Your task to perform on an android device: Turn on the flashlight Image 0: 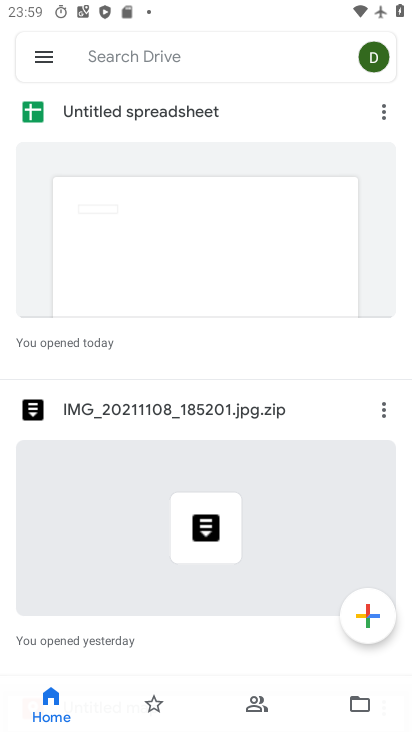
Step 0: press home button
Your task to perform on an android device: Turn on the flashlight Image 1: 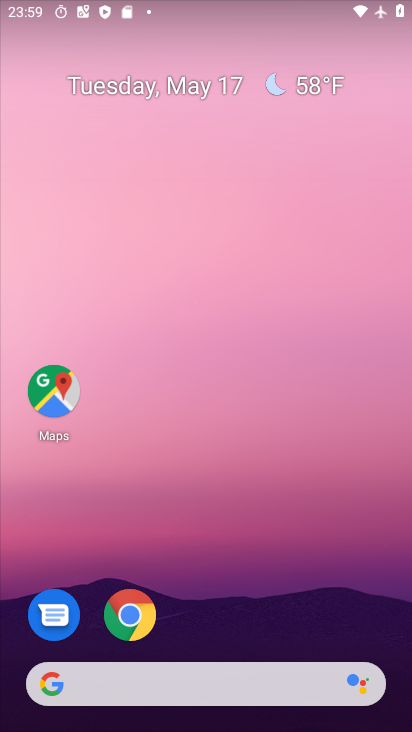
Step 1: drag from (220, 620) to (225, 137)
Your task to perform on an android device: Turn on the flashlight Image 2: 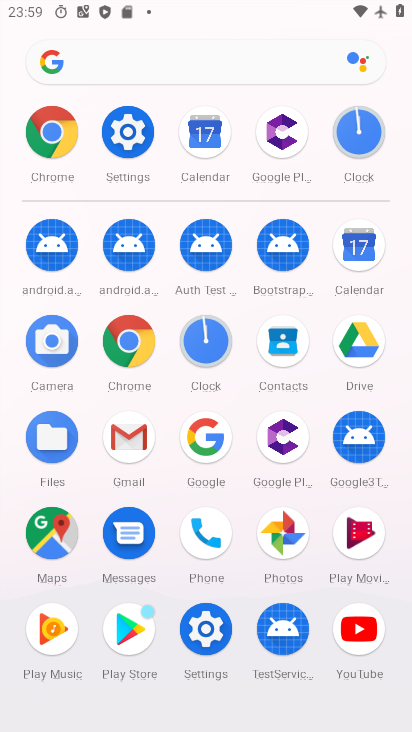
Step 2: click (130, 147)
Your task to perform on an android device: Turn on the flashlight Image 3: 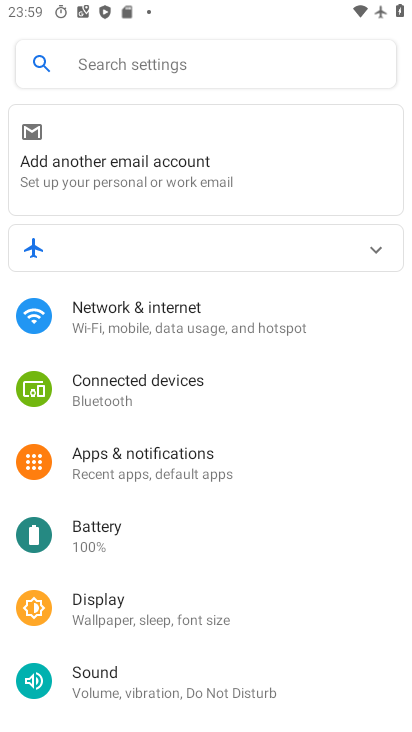
Step 3: task complete